Your task to perform on an android device: clear all cookies in the chrome app Image 0: 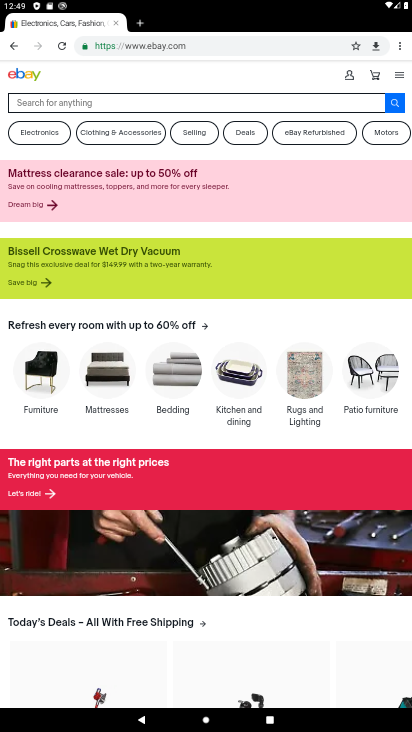
Step 0: click (396, 51)
Your task to perform on an android device: clear all cookies in the chrome app Image 1: 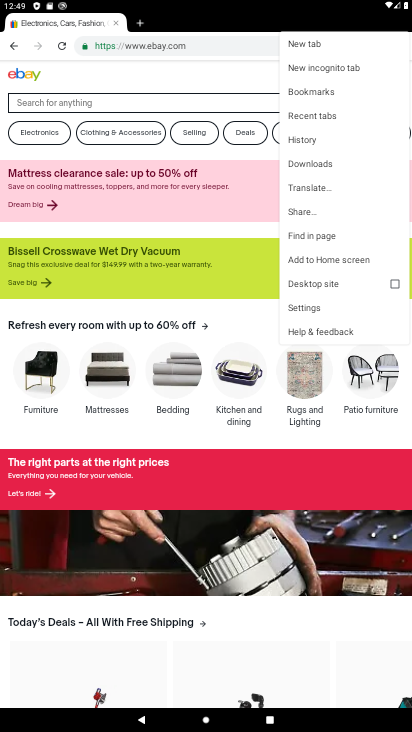
Step 1: click (305, 316)
Your task to perform on an android device: clear all cookies in the chrome app Image 2: 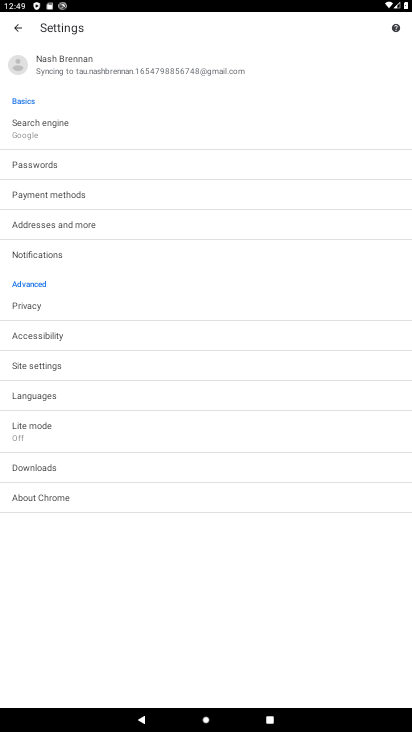
Step 2: task complete